Your task to perform on an android device: turn off notifications settings in the gmail app Image 0: 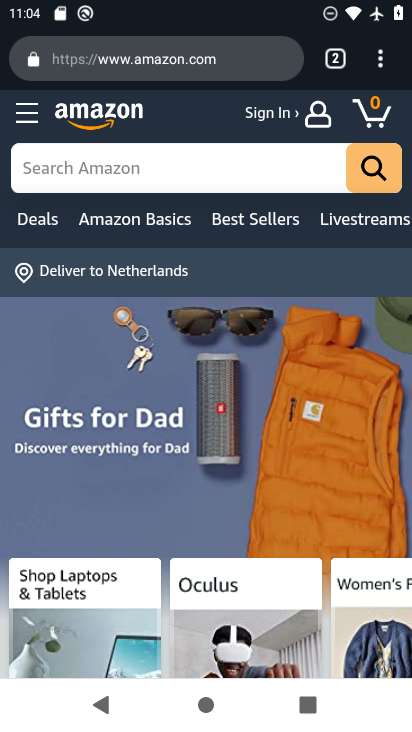
Step 0: drag from (197, 578) to (245, 159)
Your task to perform on an android device: turn off notifications settings in the gmail app Image 1: 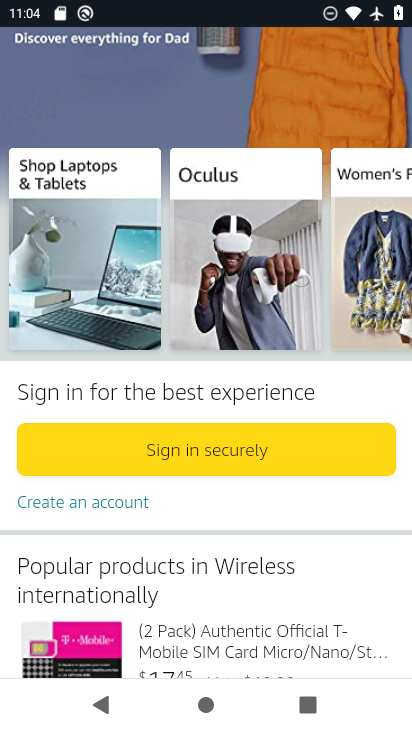
Step 1: drag from (233, 377) to (251, 730)
Your task to perform on an android device: turn off notifications settings in the gmail app Image 2: 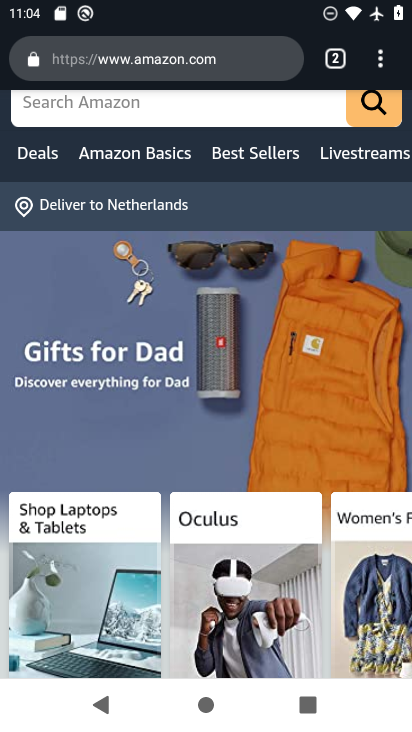
Step 2: drag from (209, 285) to (353, 728)
Your task to perform on an android device: turn off notifications settings in the gmail app Image 3: 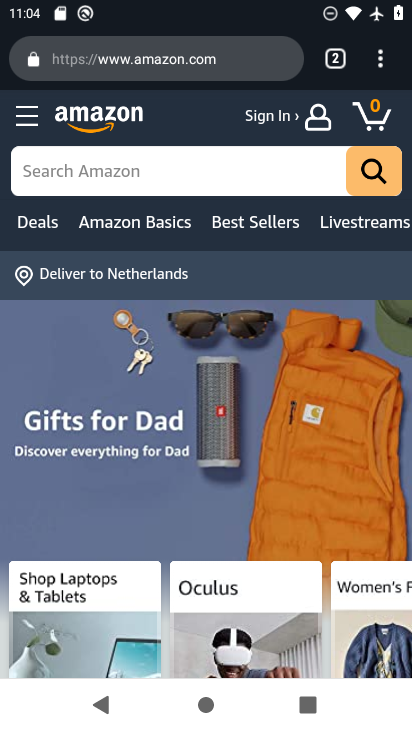
Step 3: click (383, 55)
Your task to perform on an android device: turn off notifications settings in the gmail app Image 4: 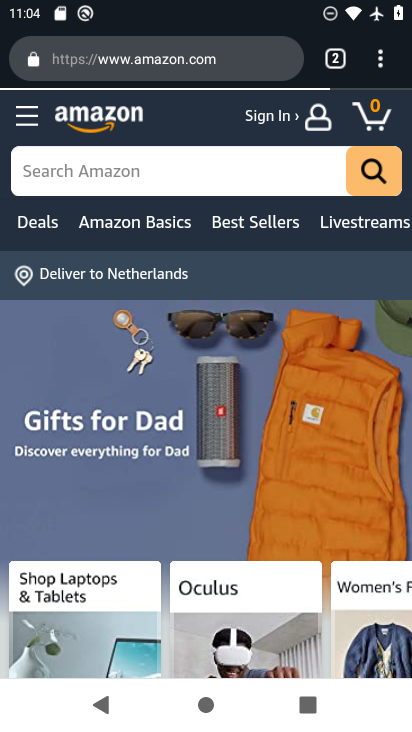
Step 4: press home button
Your task to perform on an android device: turn off notifications settings in the gmail app Image 5: 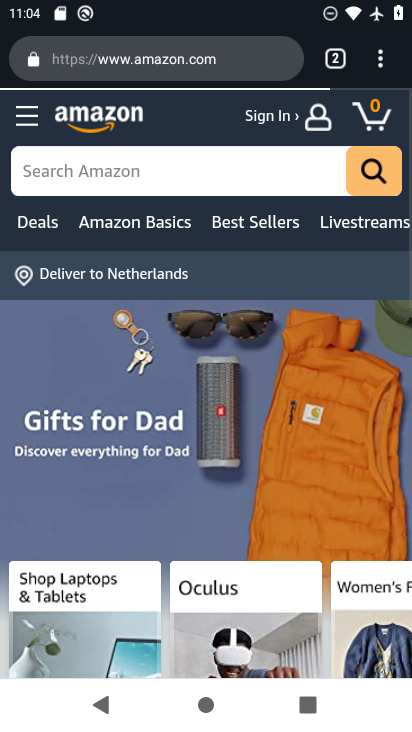
Step 5: click (233, 231)
Your task to perform on an android device: turn off notifications settings in the gmail app Image 6: 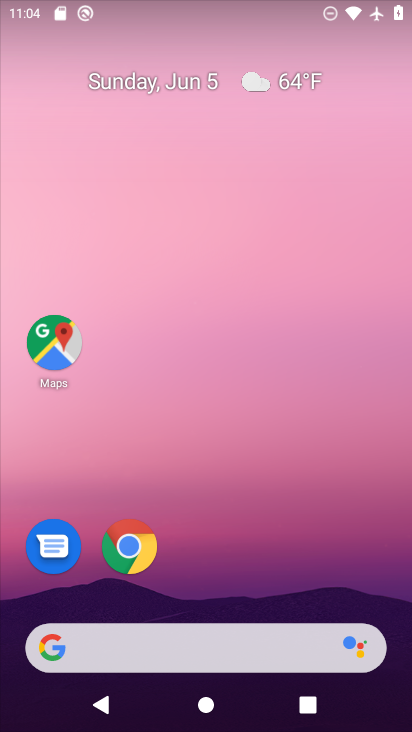
Step 6: drag from (203, 607) to (54, 358)
Your task to perform on an android device: turn off notifications settings in the gmail app Image 7: 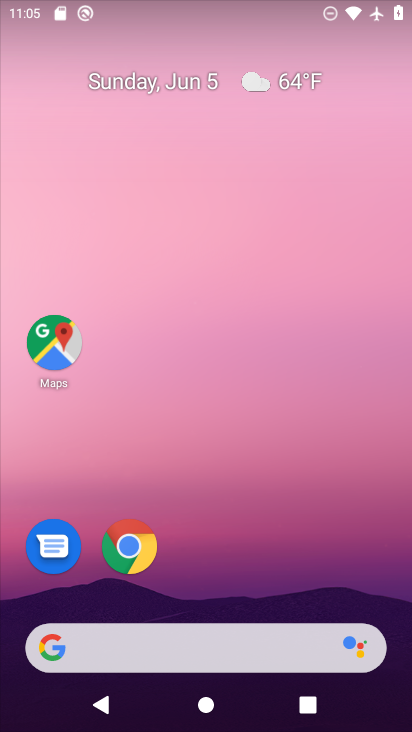
Step 7: drag from (210, 610) to (223, 11)
Your task to perform on an android device: turn off notifications settings in the gmail app Image 8: 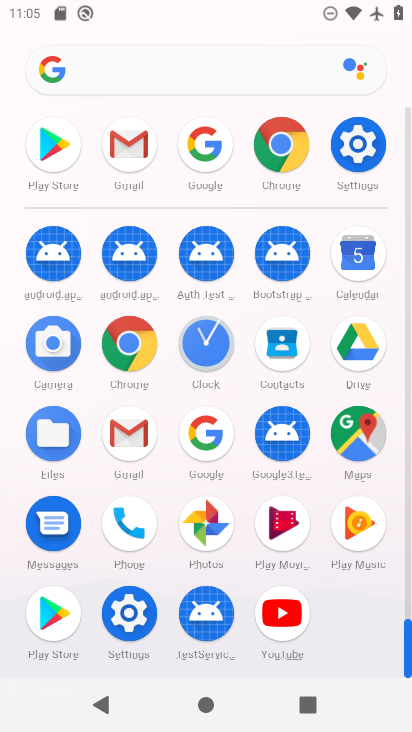
Step 8: click (108, 429)
Your task to perform on an android device: turn off notifications settings in the gmail app Image 9: 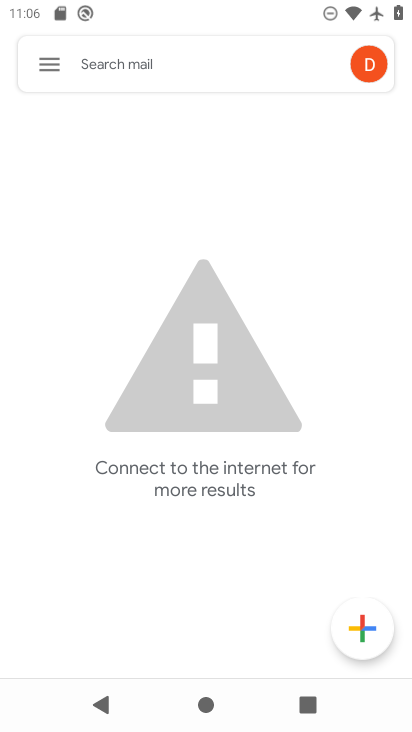
Step 9: drag from (277, 490) to (274, 84)
Your task to perform on an android device: turn off notifications settings in the gmail app Image 10: 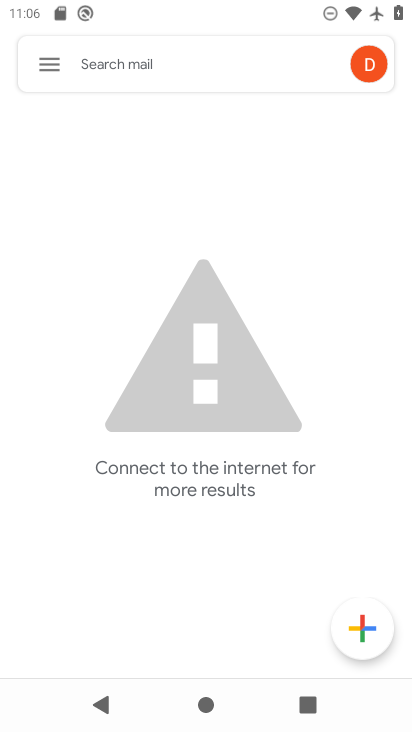
Step 10: click (60, 62)
Your task to perform on an android device: turn off notifications settings in the gmail app Image 11: 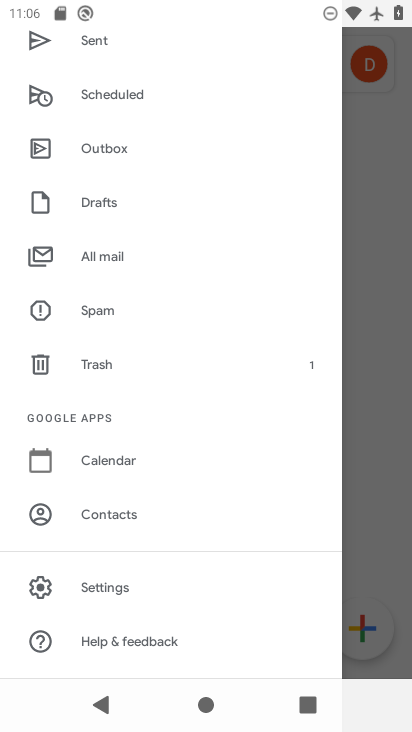
Step 11: drag from (194, 569) to (215, 121)
Your task to perform on an android device: turn off notifications settings in the gmail app Image 12: 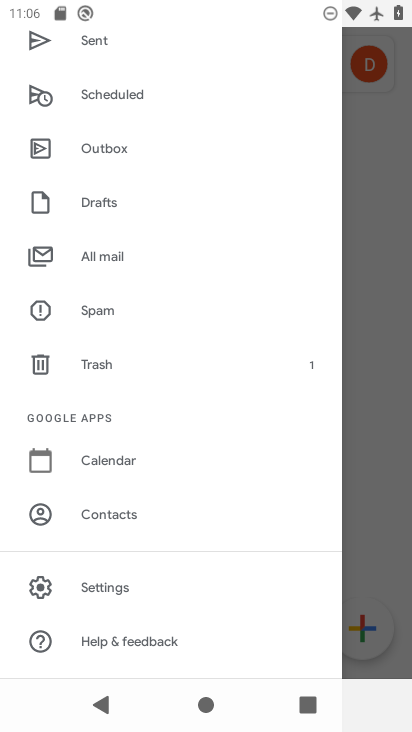
Step 12: click (126, 589)
Your task to perform on an android device: turn off notifications settings in the gmail app Image 13: 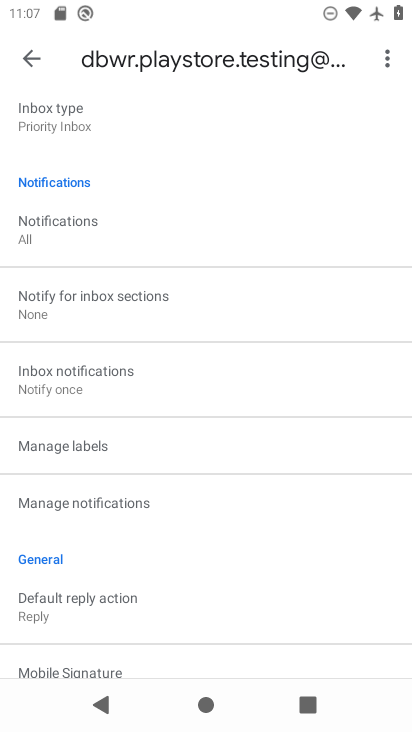
Step 13: click (155, 505)
Your task to perform on an android device: turn off notifications settings in the gmail app Image 14: 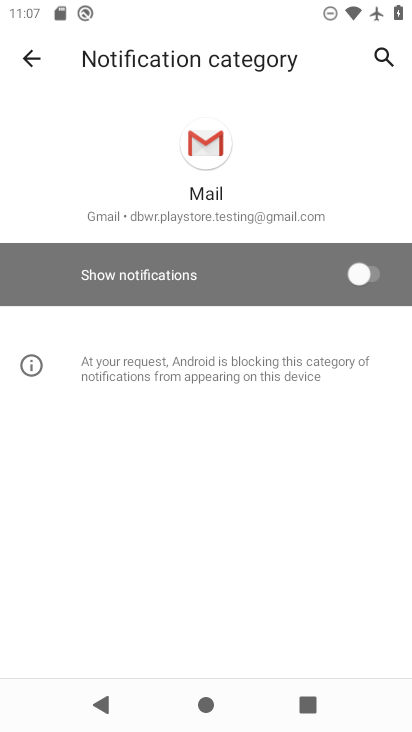
Step 14: task complete